Your task to perform on an android device: Open the Play Movies app and select the watchlist tab. Image 0: 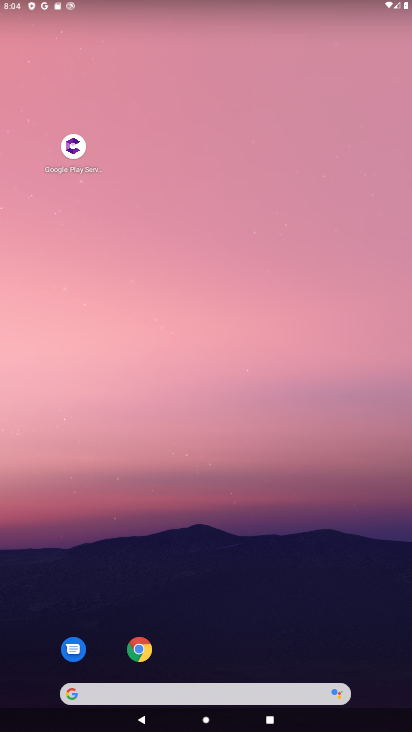
Step 0: drag from (245, 618) to (337, 4)
Your task to perform on an android device: Open the Play Movies app and select the watchlist tab. Image 1: 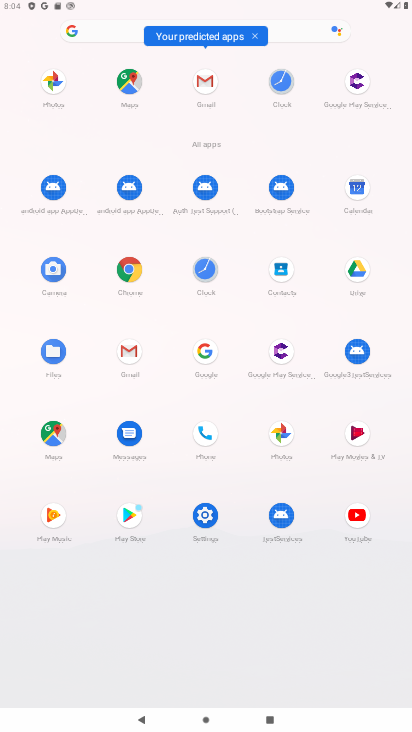
Step 1: click (362, 447)
Your task to perform on an android device: Open the Play Movies app and select the watchlist tab. Image 2: 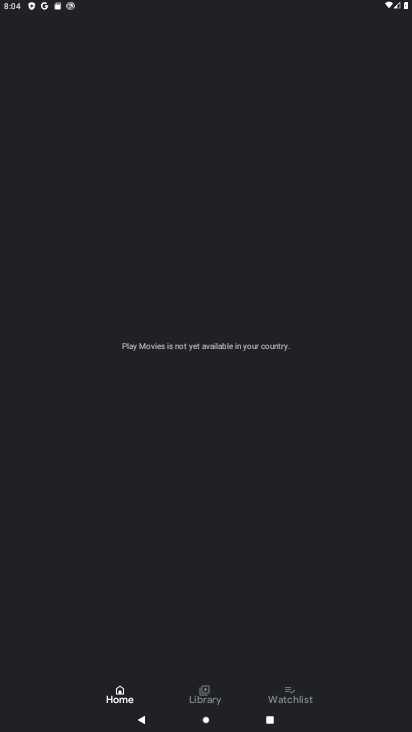
Step 2: click (287, 681)
Your task to perform on an android device: Open the Play Movies app and select the watchlist tab. Image 3: 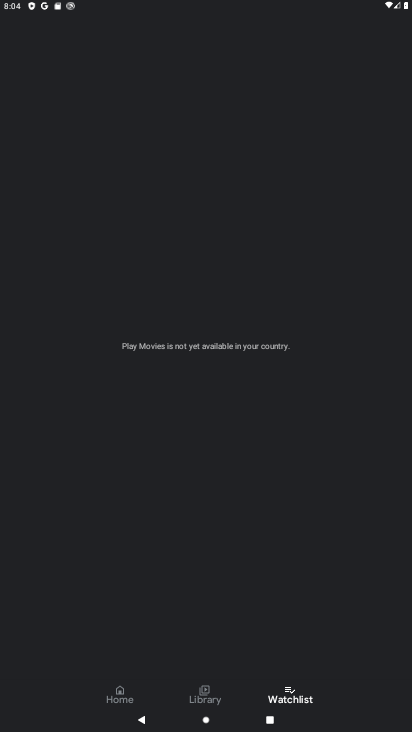
Step 3: task complete